Your task to perform on an android device: change timer sound Image 0: 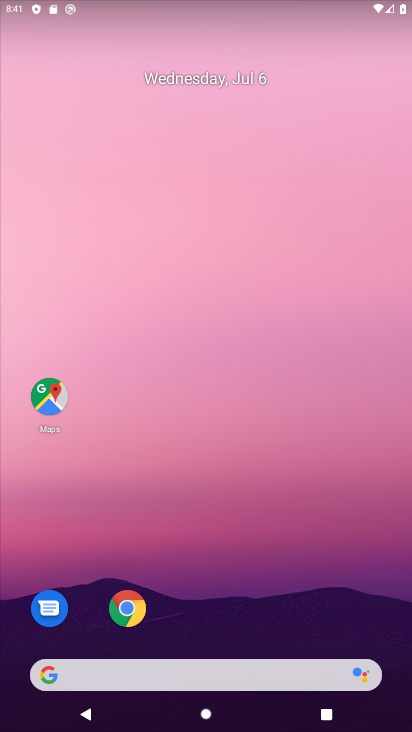
Step 0: drag from (246, 589) to (182, 3)
Your task to perform on an android device: change timer sound Image 1: 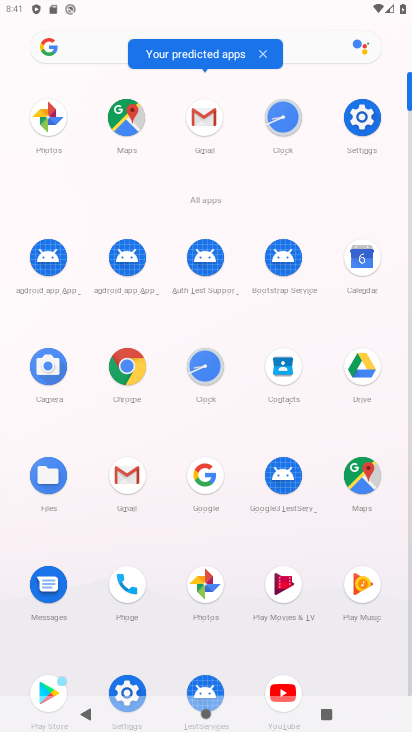
Step 1: click (292, 117)
Your task to perform on an android device: change timer sound Image 2: 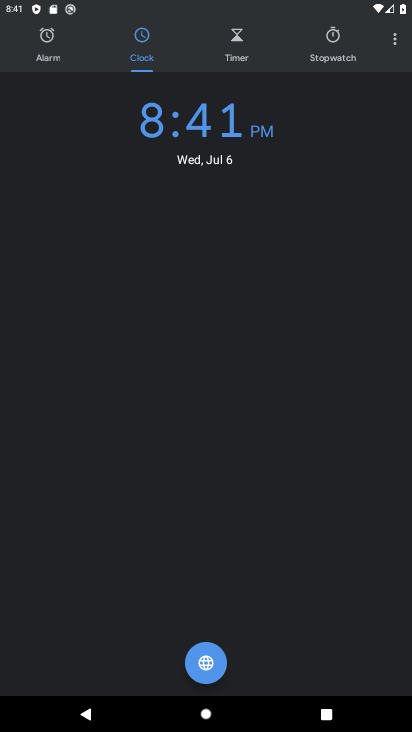
Step 2: click (399, 37)
Your task to perform on an android device: change timer sound Image 3: 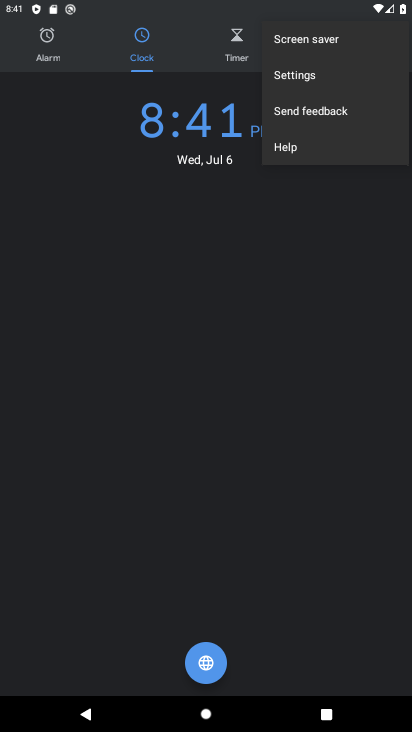
Step 3: click (390, 71)
Your task to perform on an android device: change timer sound Image 4: 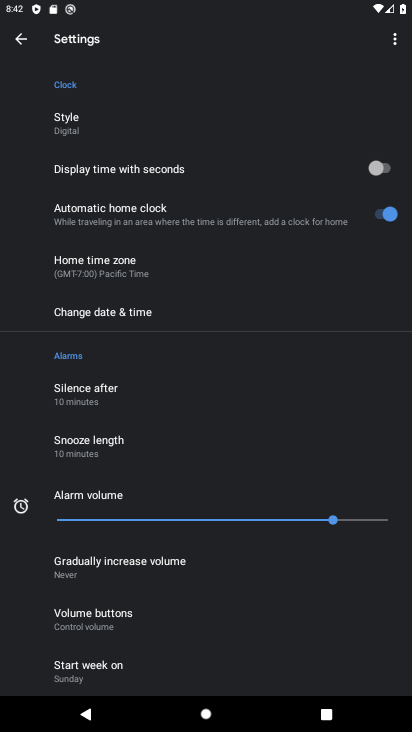
Step 4: drag from (231, 611) to (227, 278)
Your task to perform on an android device: change timer sound Image 5: 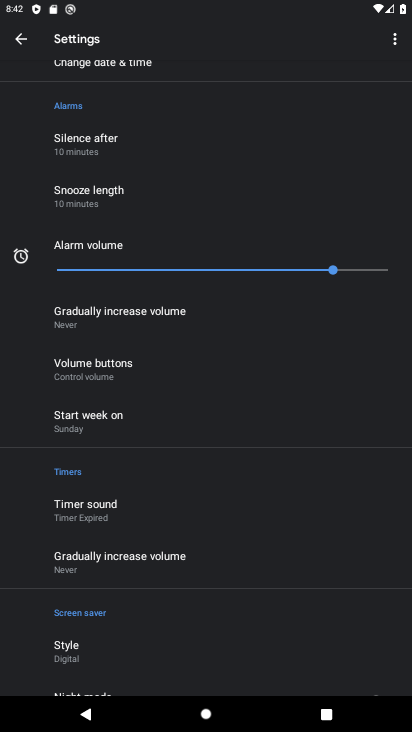
Step 5: click (246, 512)
Your task to perform on an android device: change timer sound Image 6: 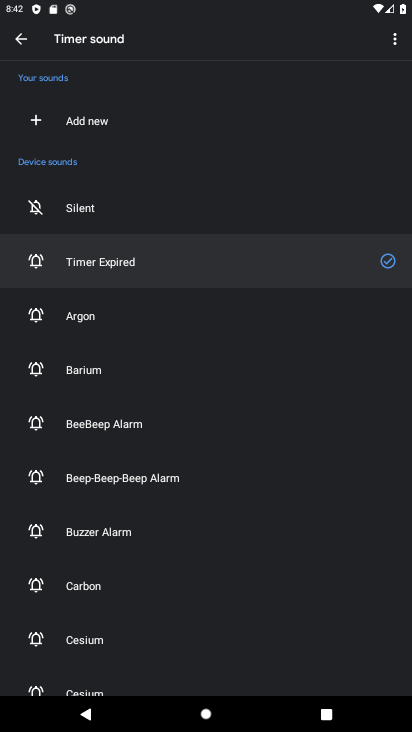
Step 6: click (190, 380)
Your task to perform on an android device: change timer sound Image 7: 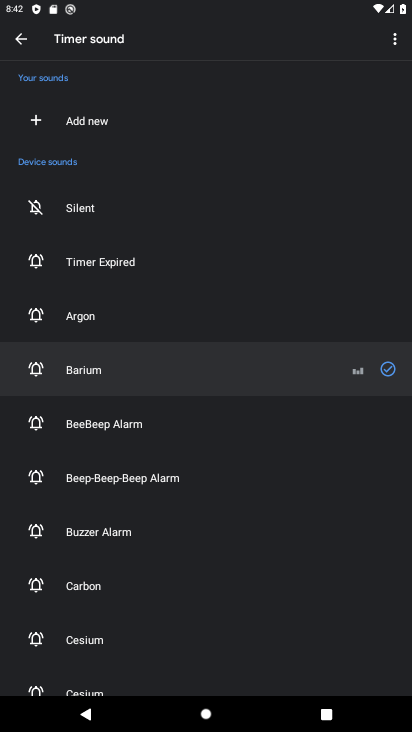
Step 7: task complete